Your task to perform on an android device: What's on my calendar today? Image 0: 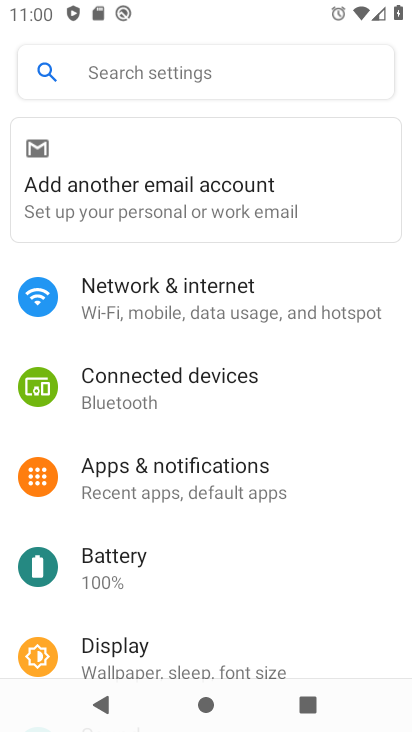
Step 0: press home button
Your task to perform on an android device: What's on my calendar today? Image 1: 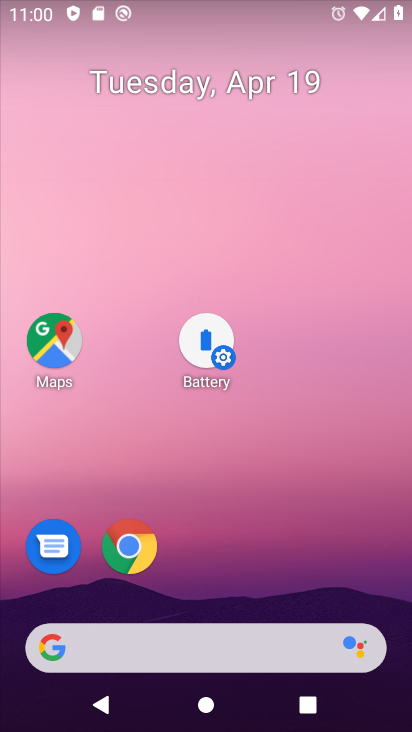
Step 1: drag from (263, 366) to (371, 104)
Your task to perform on an android device: What's on my calendar today? Image 2: 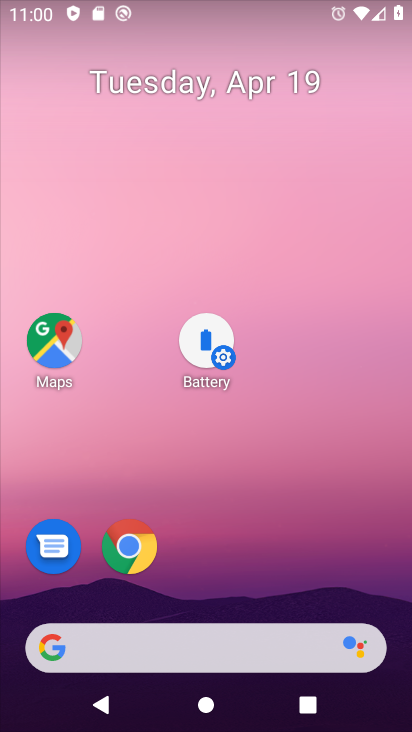
Step 2: drag from (315, 501) to (300, 141)
Your task to perform on an android device: What's on my calendar today? Image 3: 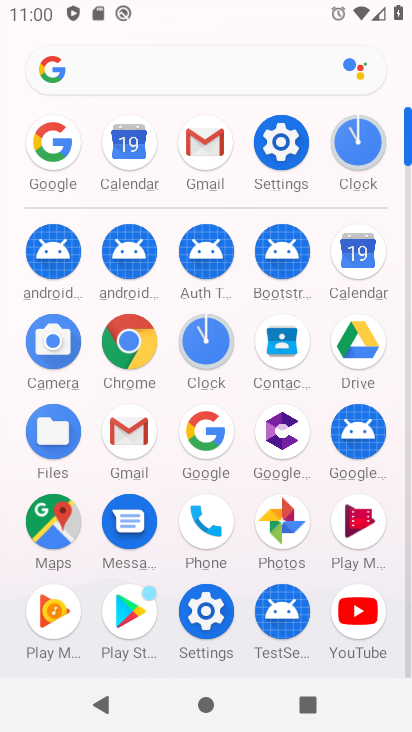
Step 3: click (355, 264)
Your task to perform on an android device: What's on my calendar today? Image 4: 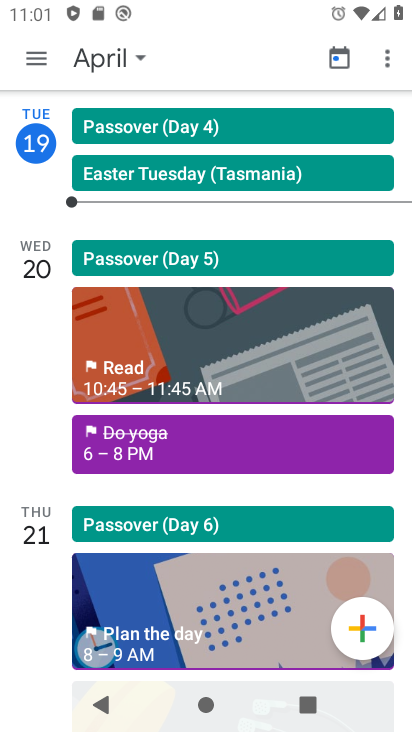
Step 4: click (156, 347)
Your task to perform on an android device: What's on my calendar today? Image 5: 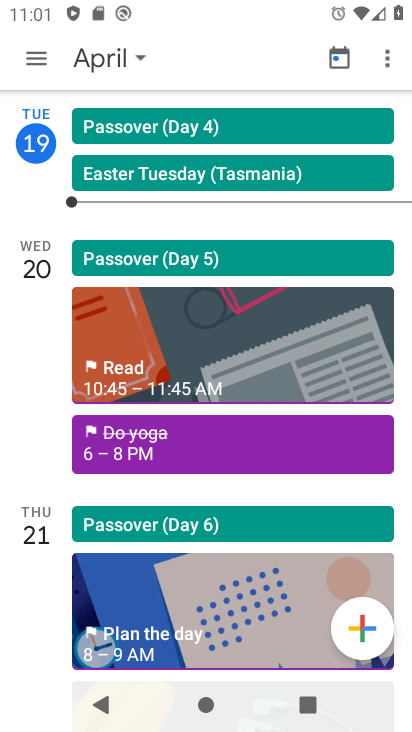
Step 5: click (226, 354)
Your task to perform on an android device: What's on my calendar today? Image 6: 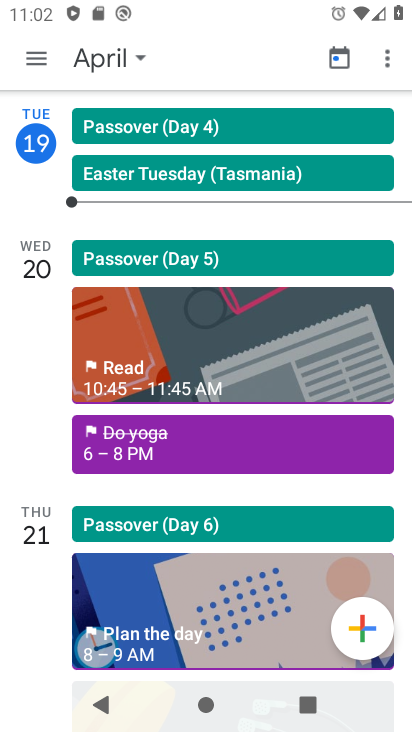
Step 6: task complete